Your task to perform on an android device: Open wifi settings Image 0: 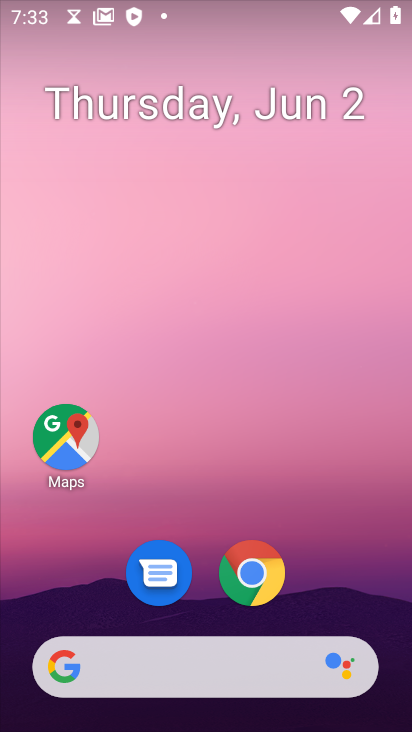
Step 0: drag from (185, 675) to (352, 95)
Your task to perform on an android device: Open wifi settings Image 1: 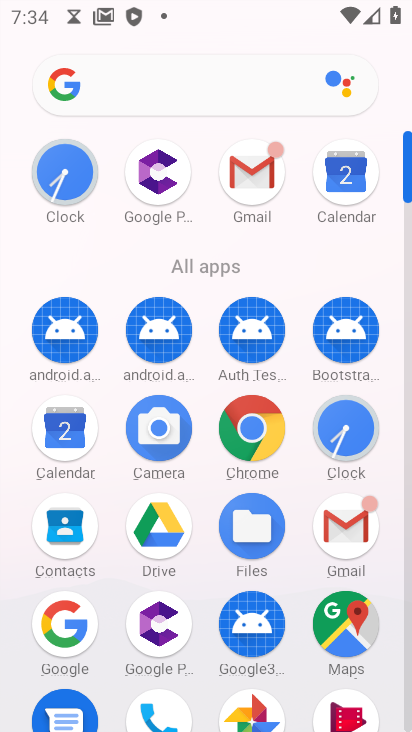
Step 1: drag from (201, 644) to (323, 228)
Your task to perform on an android device: Open wifi settings Image 2: 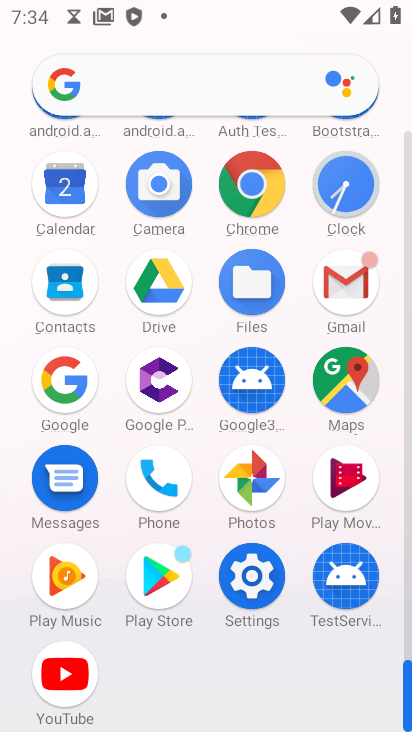
Step 2: click (244, 586)
Your task to perform on an android device: Open wifi settings Image 3: 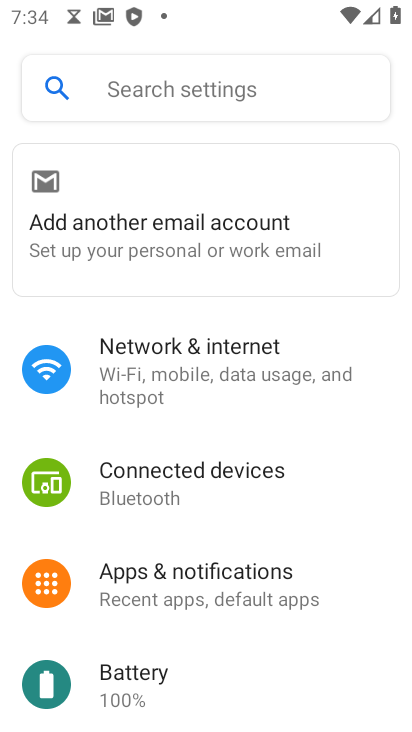
Step 3: click (195, 352)
Your task to perform on an android device: Open wifi settings Image 4: 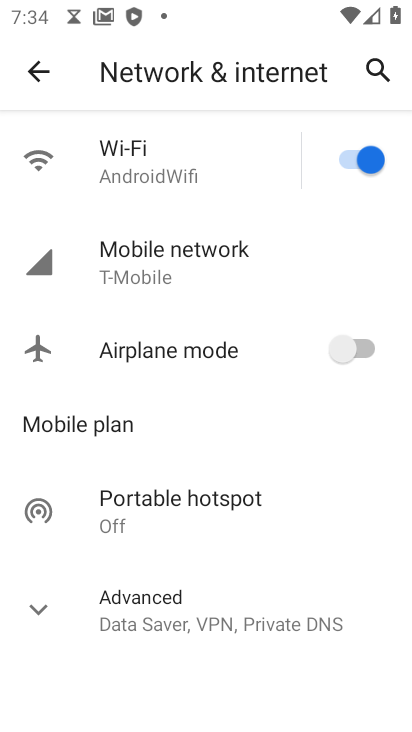
Step 4: click (167, 171)
Your task to perform on an android device: Open wifi settings Image 5: 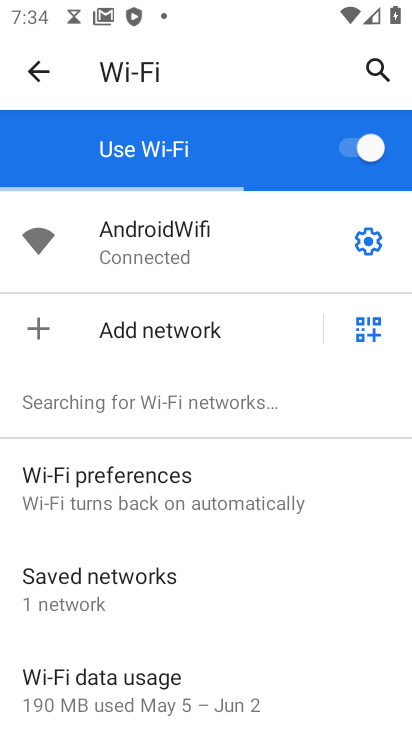
Step 5: task complete